Your task to perform on an android device: Find the nearest electronics store that's open now Image 0: 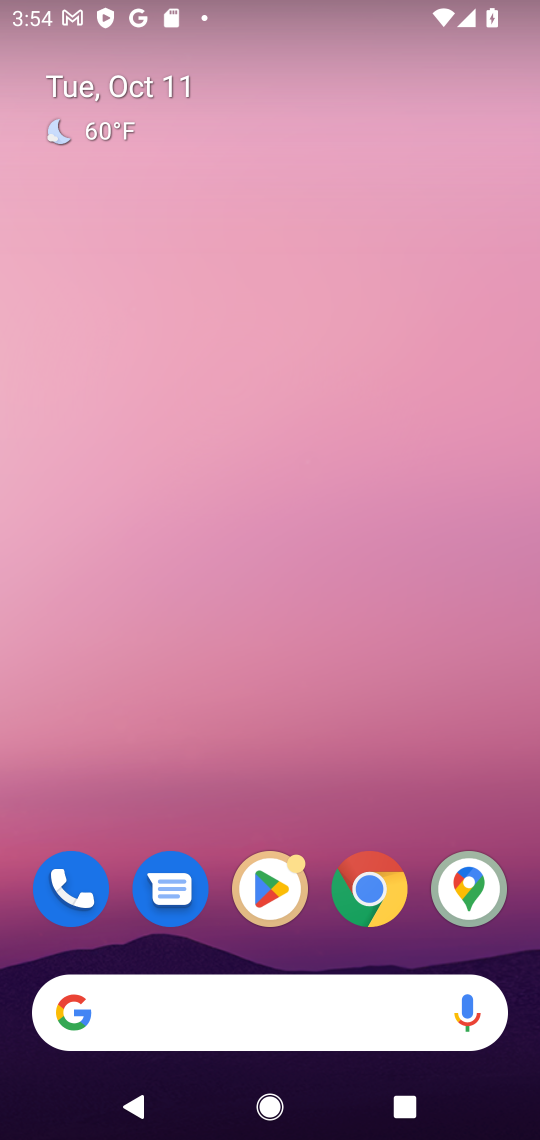
Step 0: click (298, 296)
Your task to perform on an android device: Find the nearest electronics store that's open now Image 1: 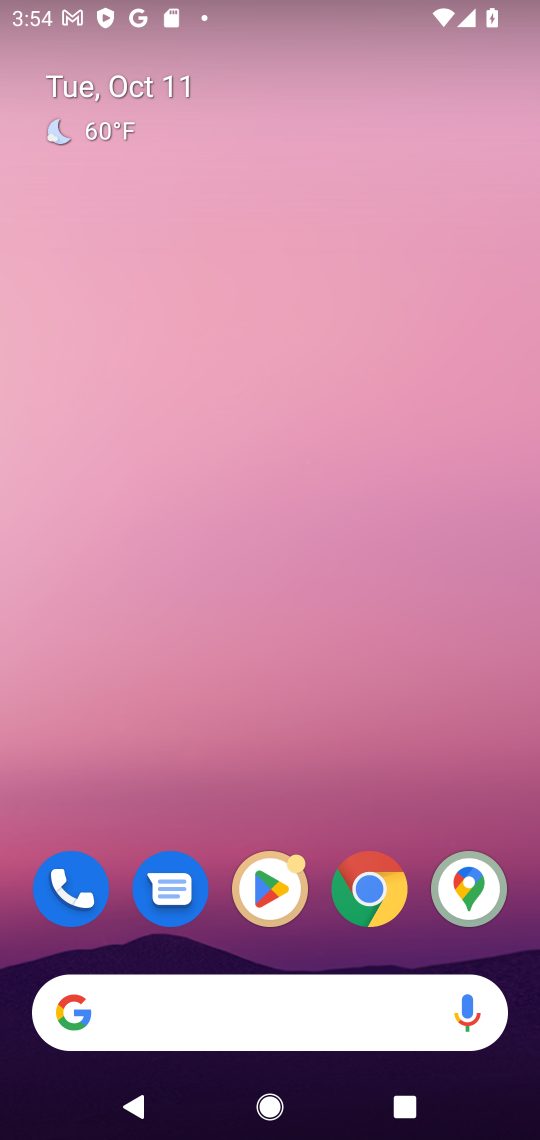
Step 1: drag from (178, 963) to (165, 386)
Your task to perform on an android device: Find the nearest electronics store that's open now Image 2: 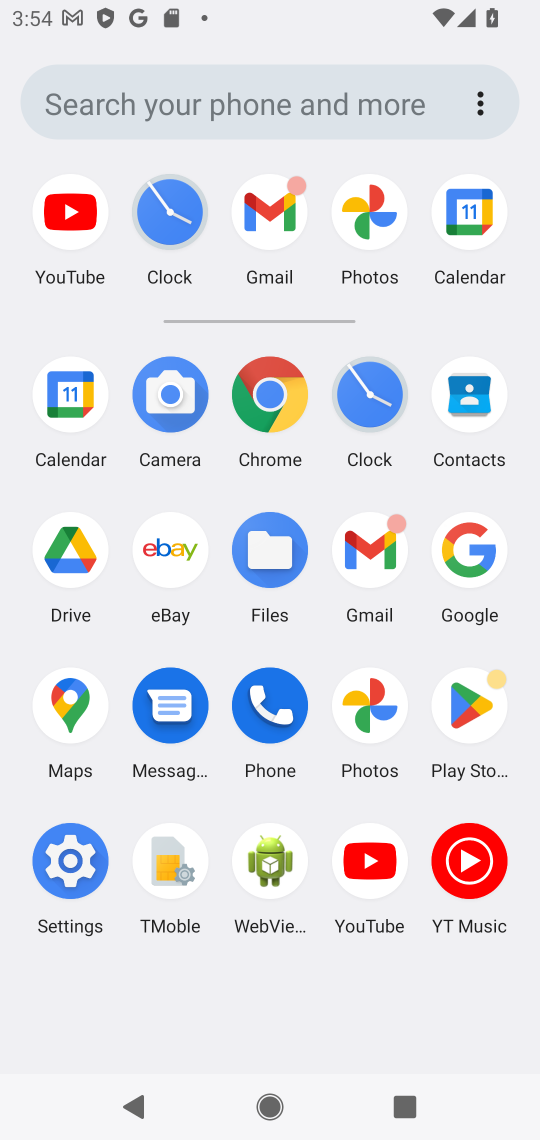
Step 2: click (475, 539)
Your task to perform on an android device: Find the nearest electronics store that's open now Image 3: 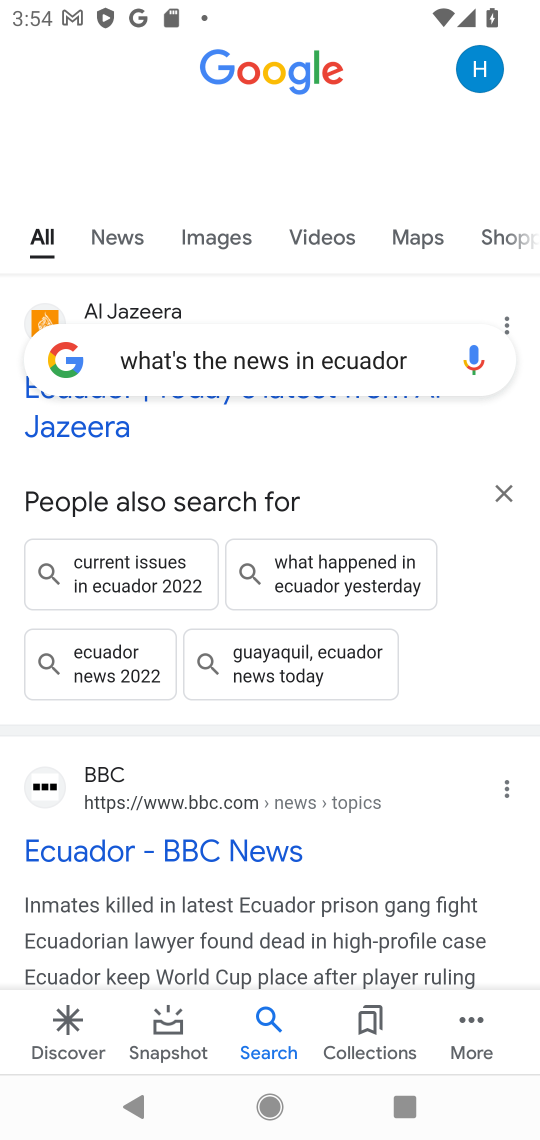
Step 3: click (334, 365)
Your task to perform on an android device: Find the nearest electronics store that's open now Image 4: 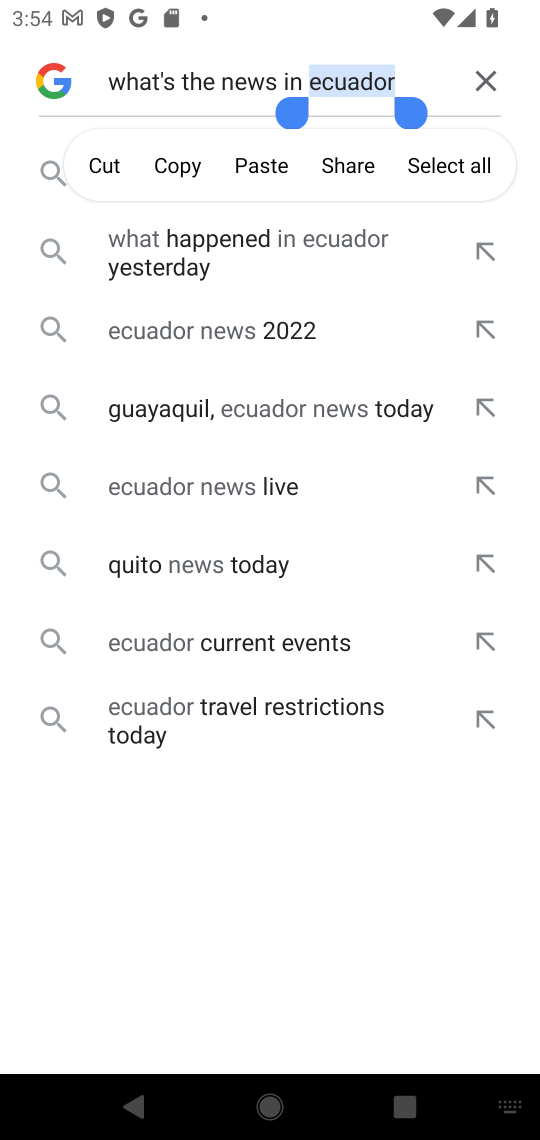
Step 4: click (487, 73)
Your task to perform on an android device: Find the nearest electronics store that's open now Image 5: 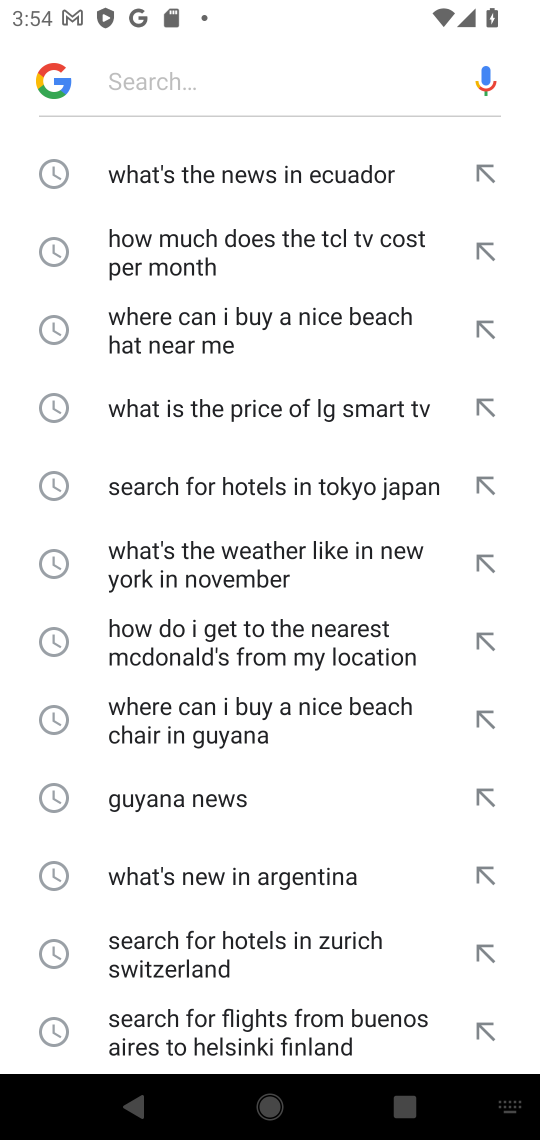
Step 5: click (188, 78)
Your task to perform on an android device: Find the nearest electronics store that's open now Image 6: 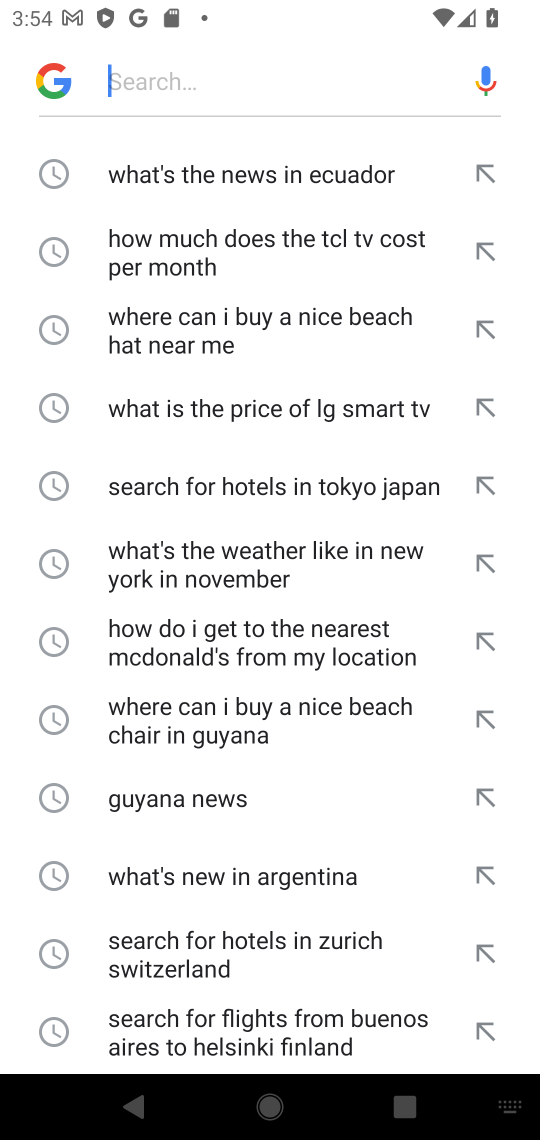
Step 6: type "Find the nearest electronics store that's open now "
Your task to perform on an android device: Find the nearest electronics store that's open now Image 7: 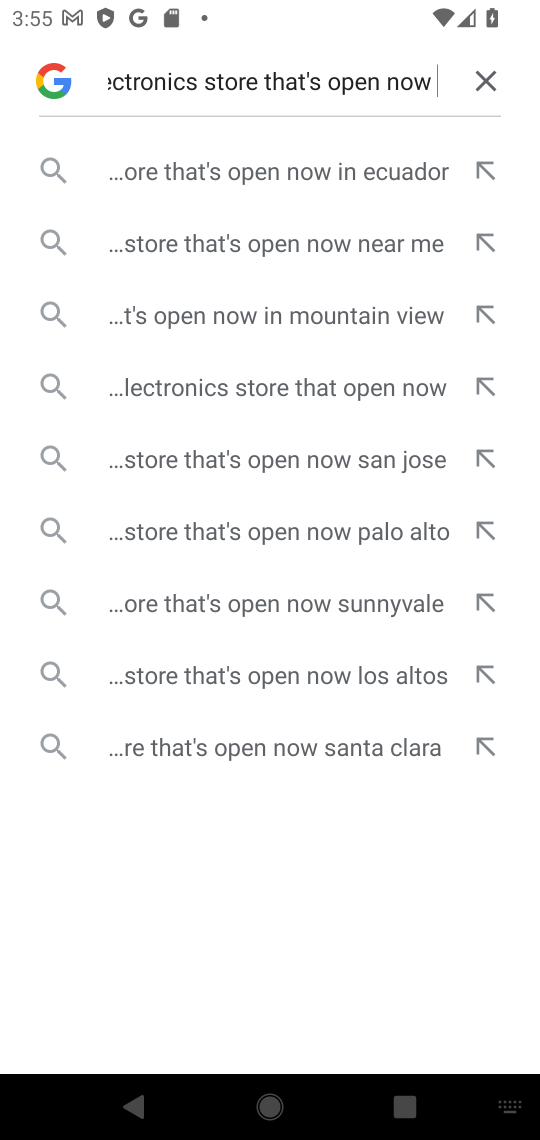
Step 7: click (306, 170)
Your task to perform on an android device: Find the nearest electronics store that's open now Image 8: 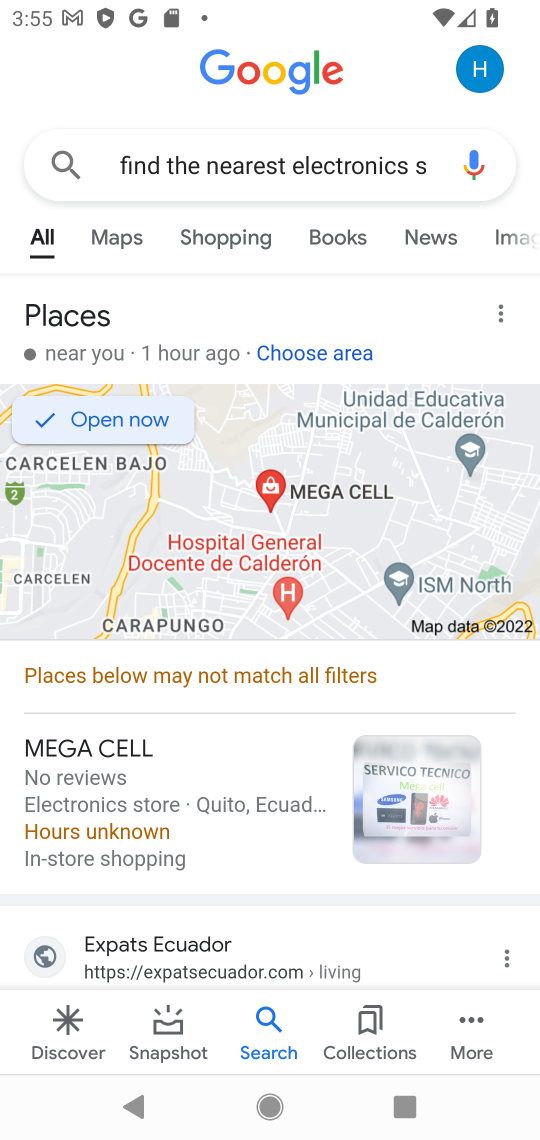
Step 8: task complete